Your task to perform on an android device: Open Yahoo.com Image 0: 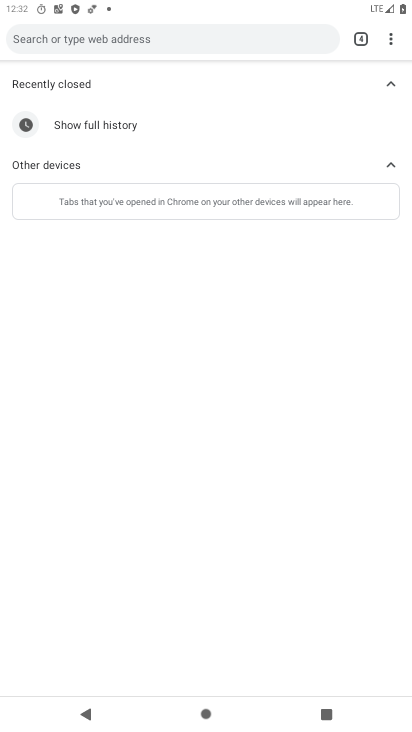
Step 0: press home button
Your task to perform on an android device: Open Yahoo.com Image 1: 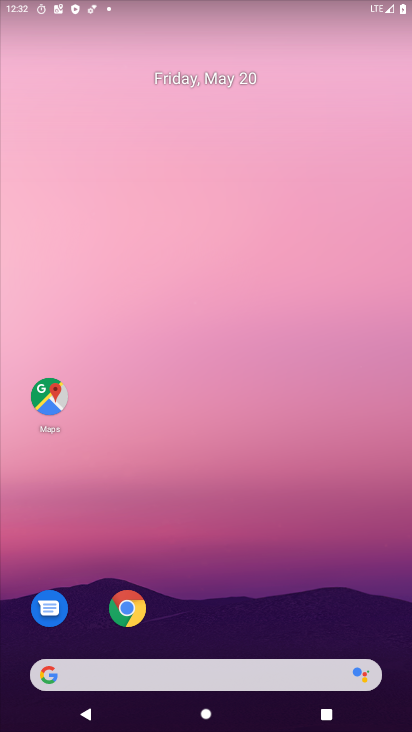
Step 1: drag from (394, 597) to (326, 122)
Your task to perform on an android device: Open Yahoo.com Image 2: 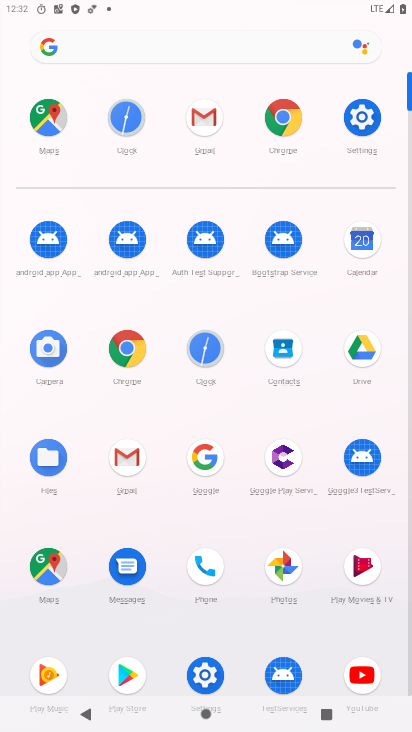
Step 2: click (293, 124)
Your task to perform on an android device: Open Yahoo.com Image 3: 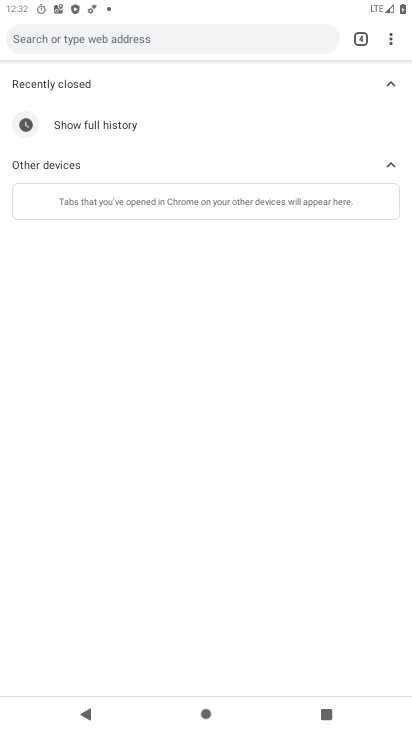
Step 3: click (167, 36)
Your task to perform on an android device: Open Yahoo.com Image 4: 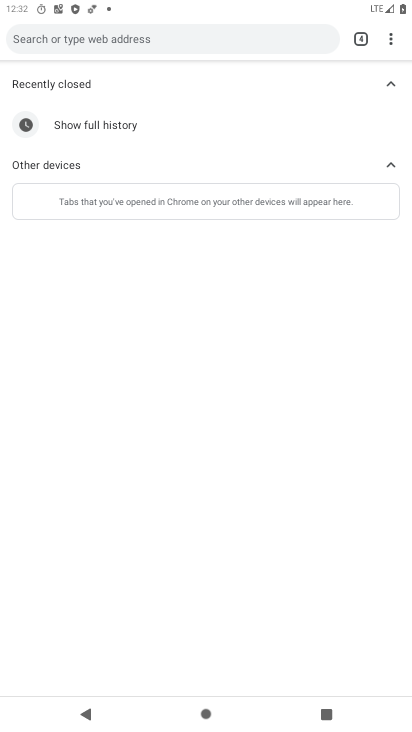
Step 4: click (111, 47)
Your task to perform on an android device: Open Yahoo.com Image 5: 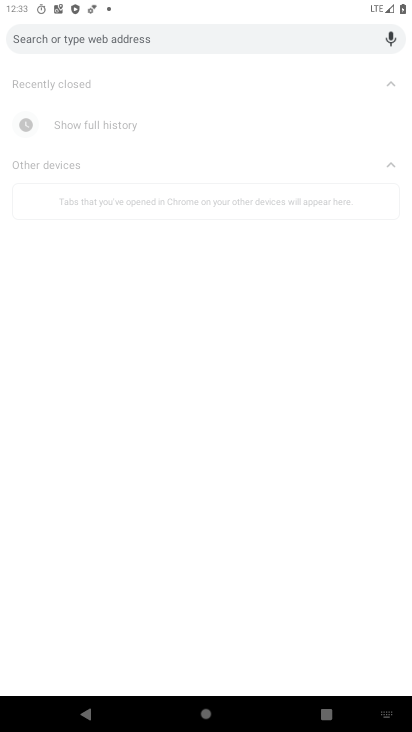
Step 5: type "yahoo.com"
Your task to perform on an android device: Open Yahoo.com Image 6: 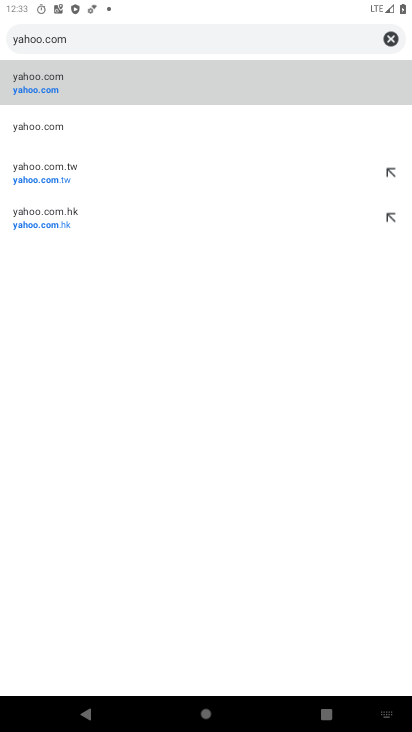
Step 6: click (90, 88)
Your task to perform on an android device: Open Yahoo.com Image 7: 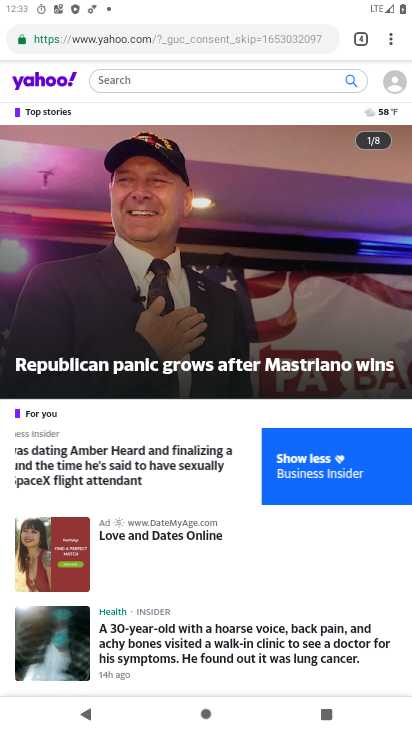
Step 7: task complete